Your task to perform on an android device: What is the news today? Image 0: 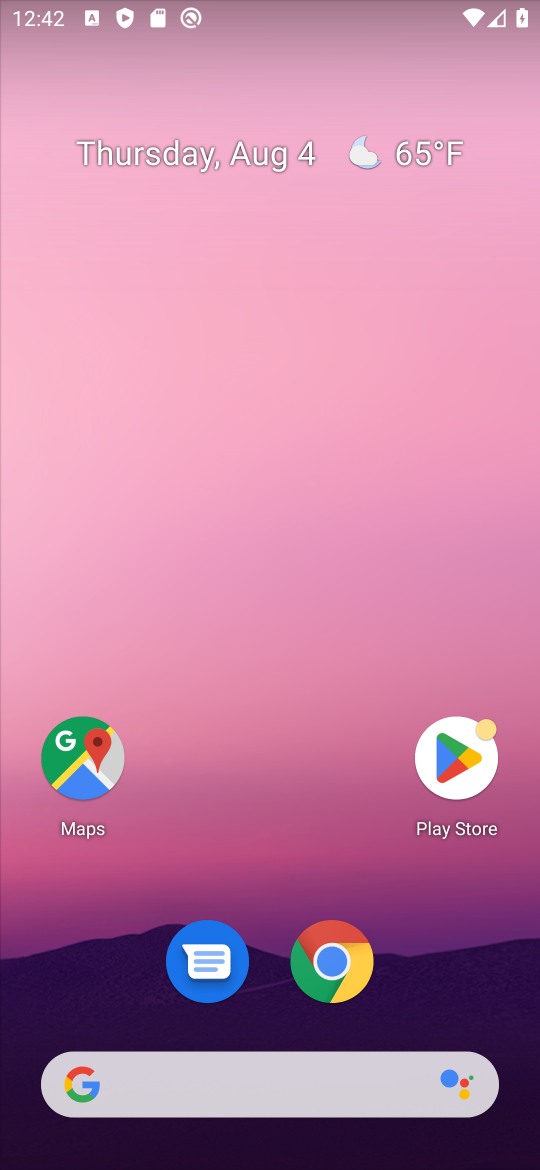
Step 0: click (185, 1094)
Your task to perform on an android device: What is the news today? Image 1: 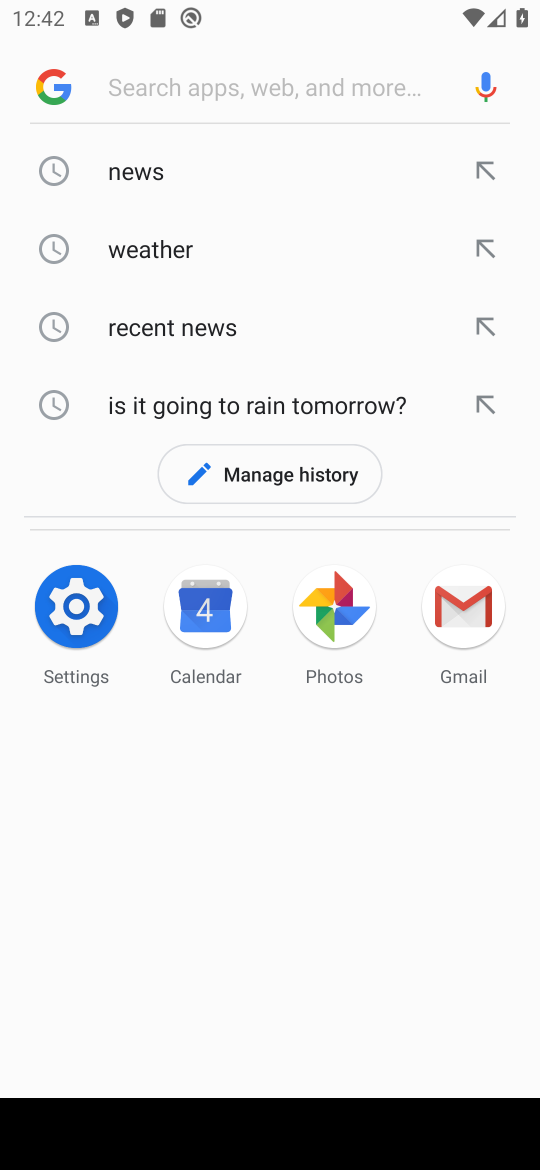
Step 1: click (141, 180)
Your task to perform on an android device: What is the news today? Image 2: 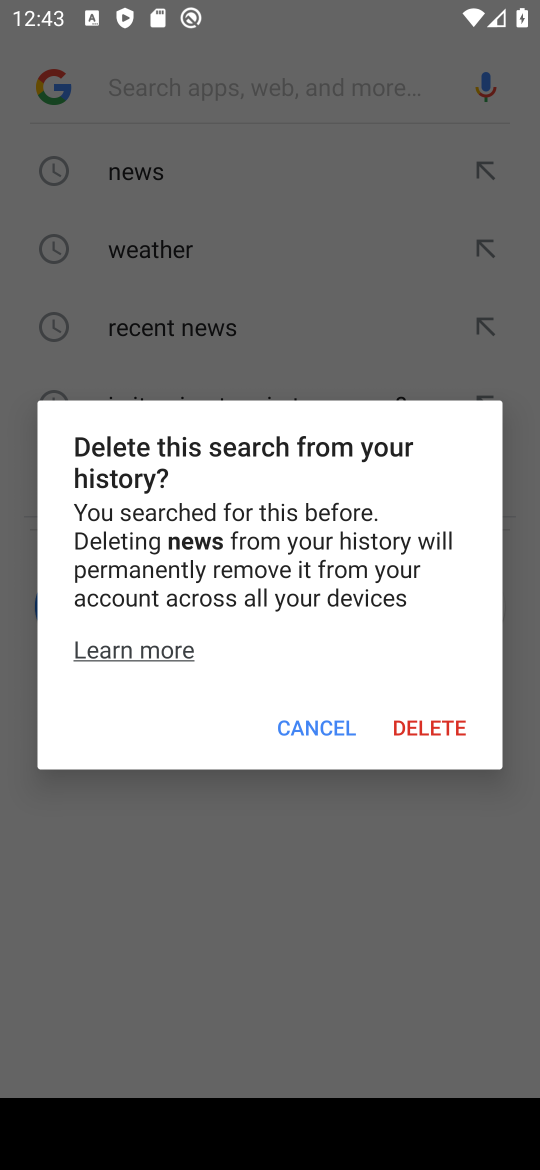
Step 2: click (334, 721)
Your task to perform on an android device: What is the news today? Image 3: 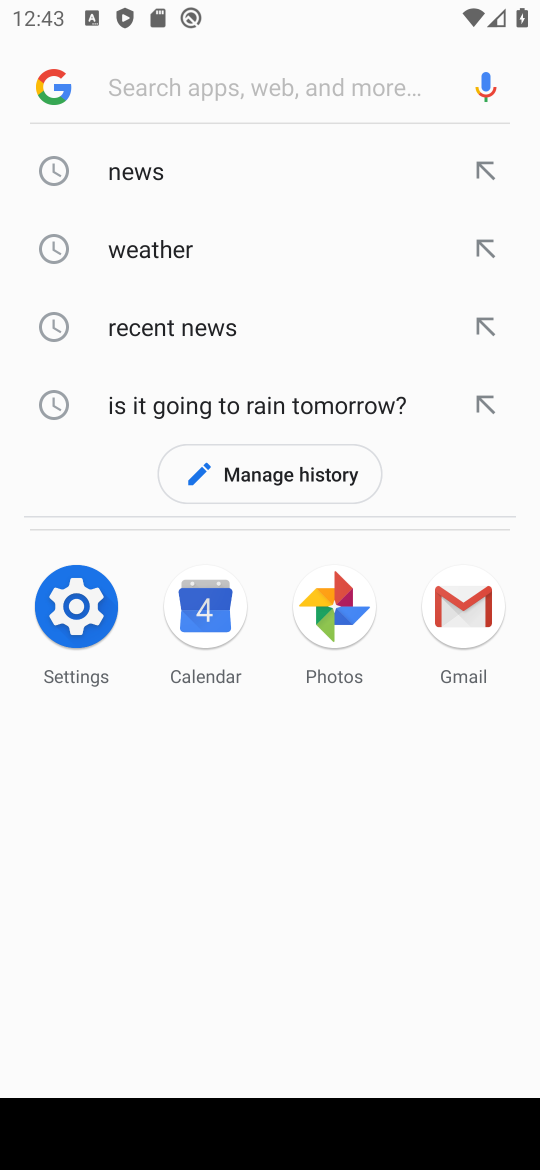
Step 3: click (267, 165)
Your task to perform on an android device: What is the news today? Image 4: 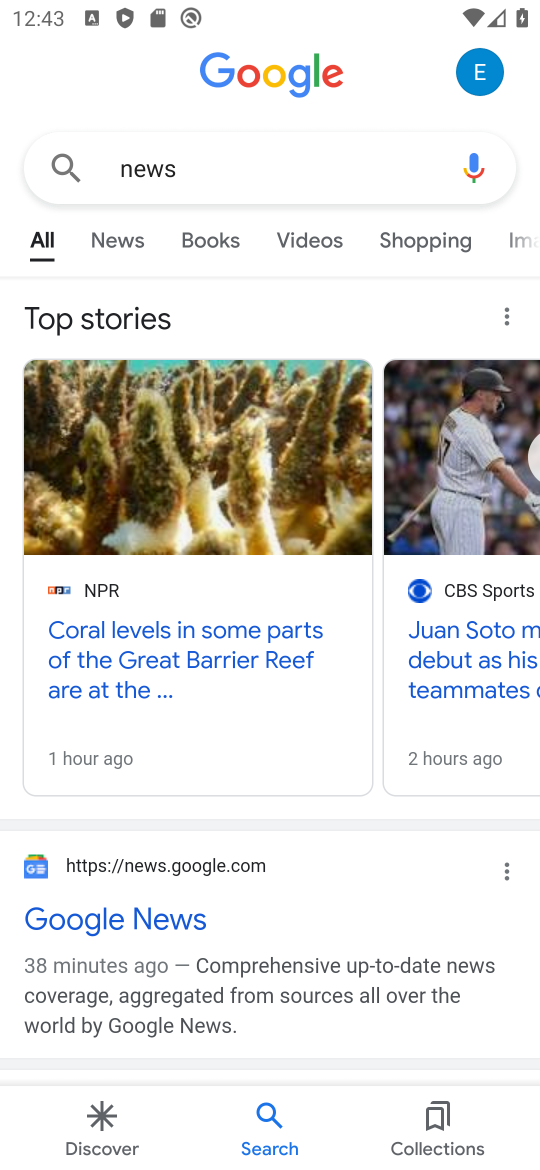
Step 4: click (242, 627)
Your task to perform on an android device: What is the news today? Image 5: 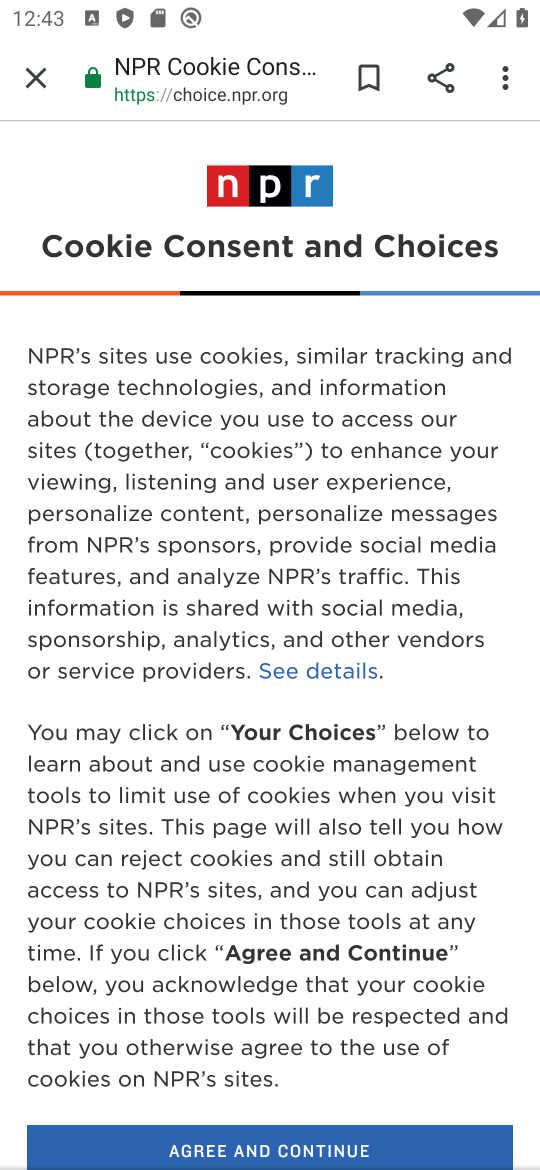
Step 5: click (299, 1149)
Your task to perform on an android device: What is the news today? Image 6: 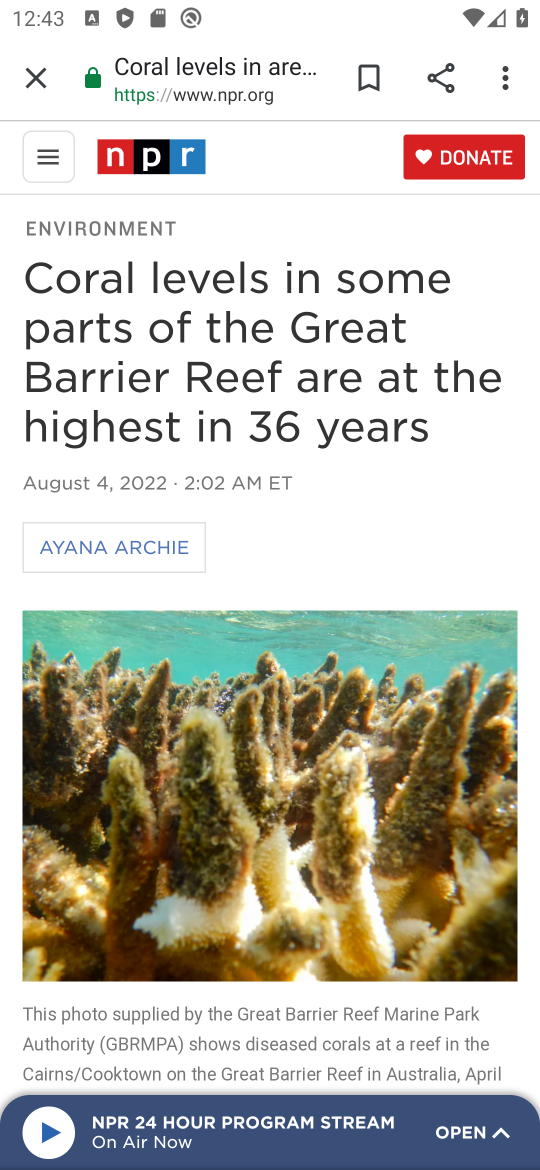
Step 6: task complete